Your task to perform on an android device: Open my contact list Image 0: 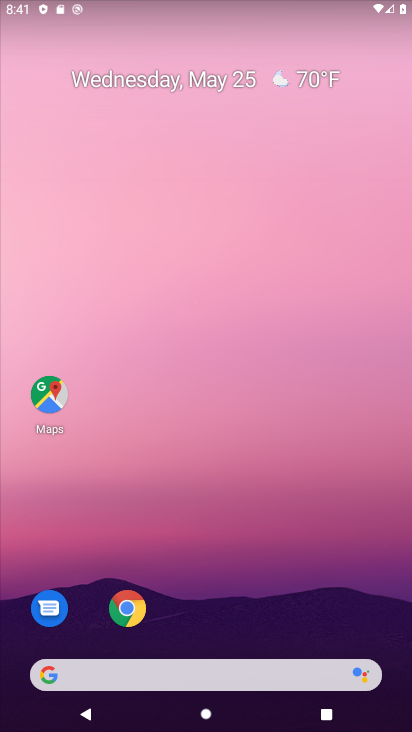
Step 0: drag from (319, 623) to (275, 56)
Your task to perform on an android device: Open my contact list Image 1: 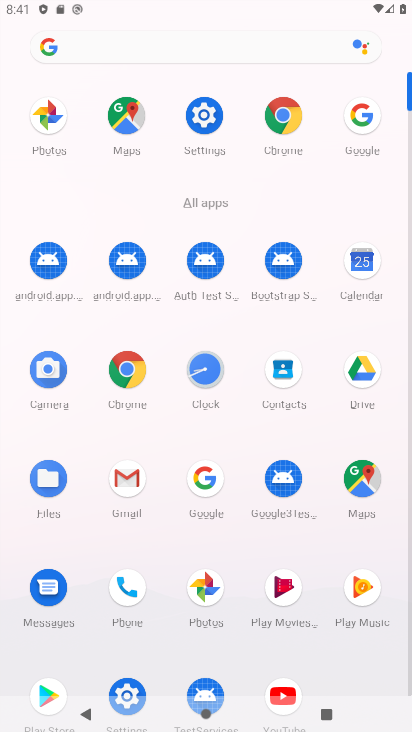
Step 1: click (290, 368)
Your task to perform on an android device: Open my contact list Image 2: 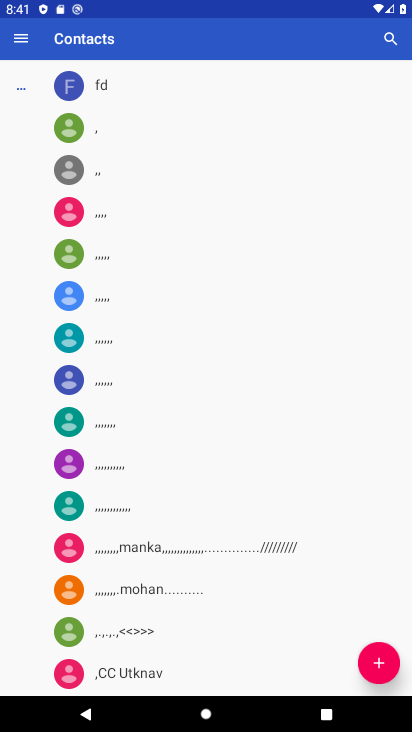
Step 2: task complete